Your task to perform on an android device: toggle show notifications on the lock screen Image 0: 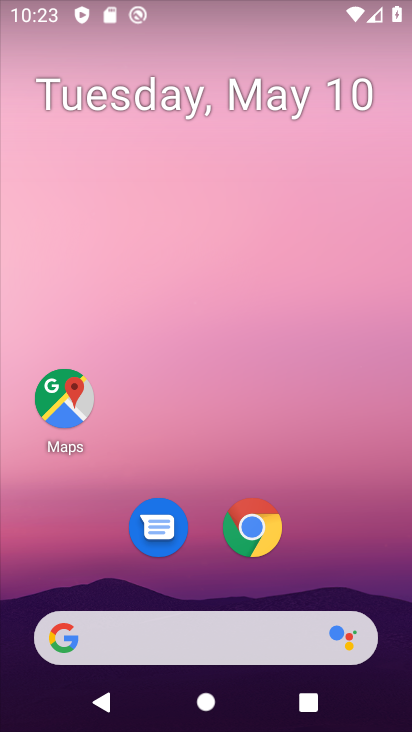
Step 0: drag from (355, 578) to (305, 180)
Your task to perform on an android device: toggle show notifications on the lock screen Image 1: 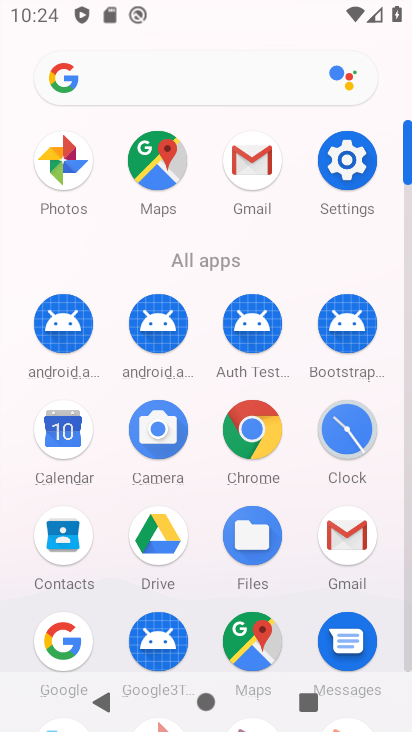
Step 1: click (342, 168)
Your task to perform on an android device: toggle show notifications on the lock screen Image 2: 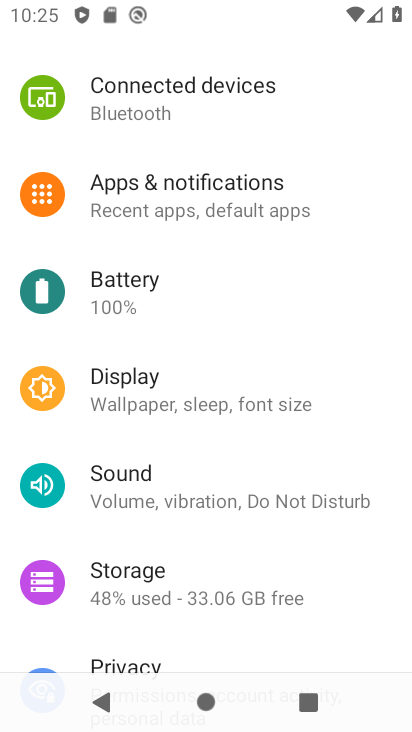
Step 2: click (274, 183)
Your task to perform on an android device: toggle show notifications on the lock screen Image 3: 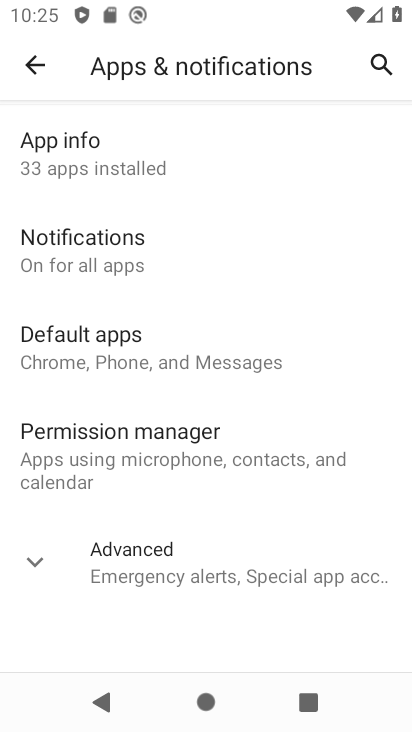
Step 3: drag from (182, 556) to (196, 225)
Your task to perform on an android device: toggle show notifications on the lock screen Image 4: 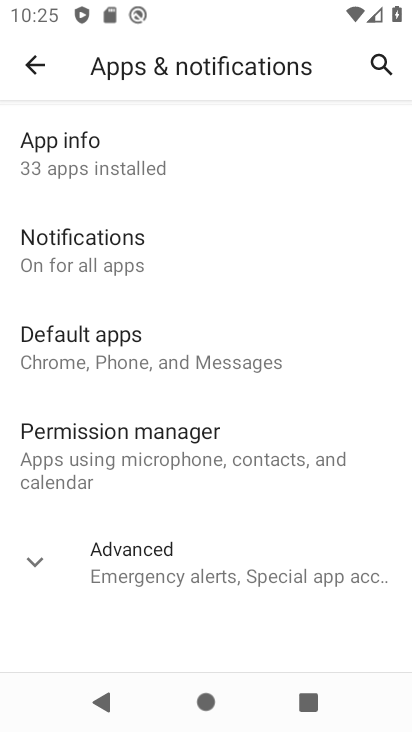
Step 4: drag from (143, 163) to (161, 480)
Your task to perform on an android device: toggle show notifications on the lock screen Image 5: 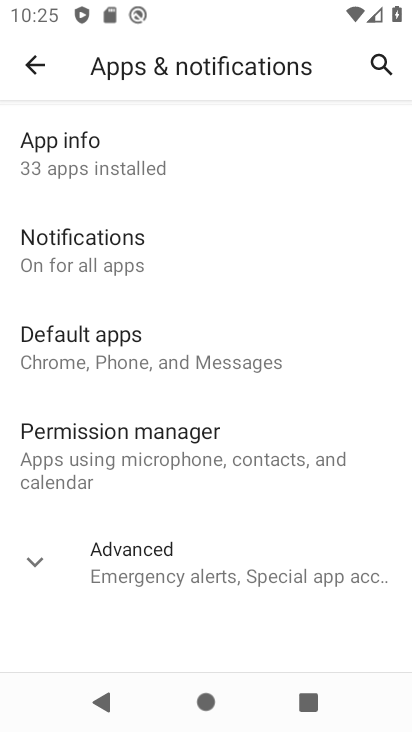
Step 5: click (94, 252)
Your task to perform on an android device: toggle show notifications on the lock screen Image 6: 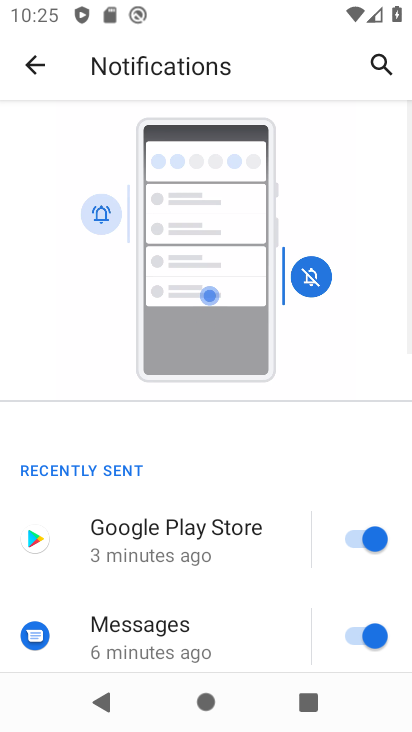
Step 6: drag from (206, 641) to (239, 290)
Your task to perform on an android device: toggle show notifications on the lock screen Image 7: 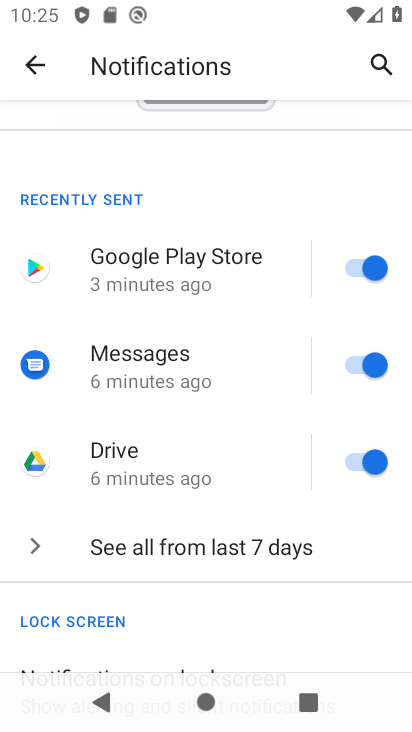
Step 7: drag from (234, 614) to (249, 375)
Your task to perform on an android device: toggle show notifications on the lock screen Image 8: 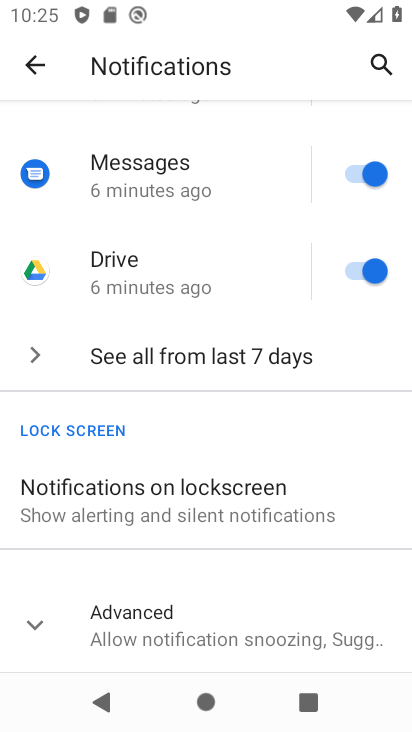
Step 8: click (145, 514)
Your task to perform on an android device: toggle show notifications on the lock screen Image 9: 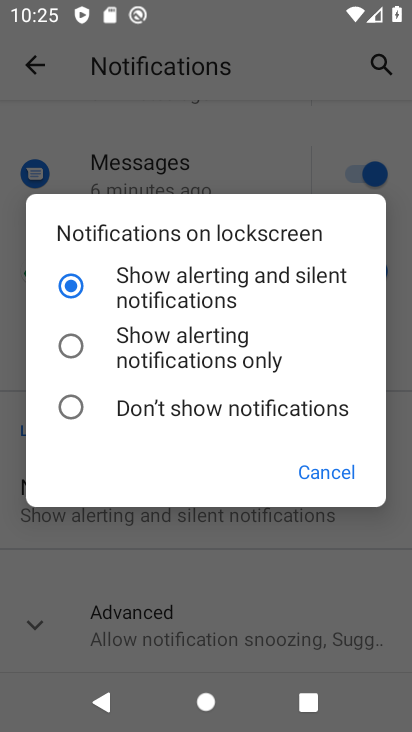
Step 9: click (62, 413)
Your task to perform on an android device: toggle show notifications on the lock screen Image 10: 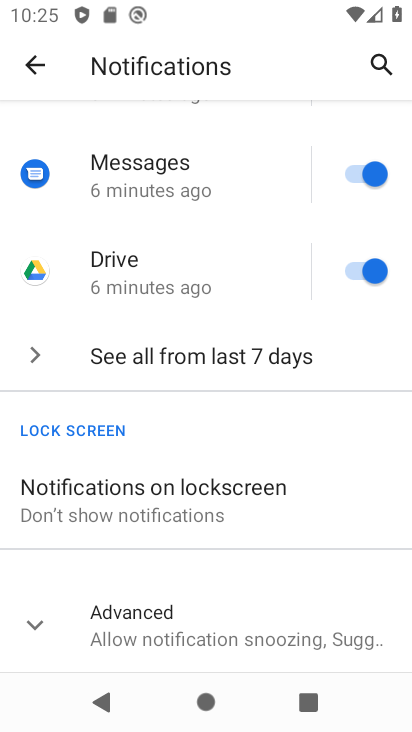
Step 10: task complete